Your task to perform on an android device: Add beats solo 3 to the cart on ebay.com Image 0: 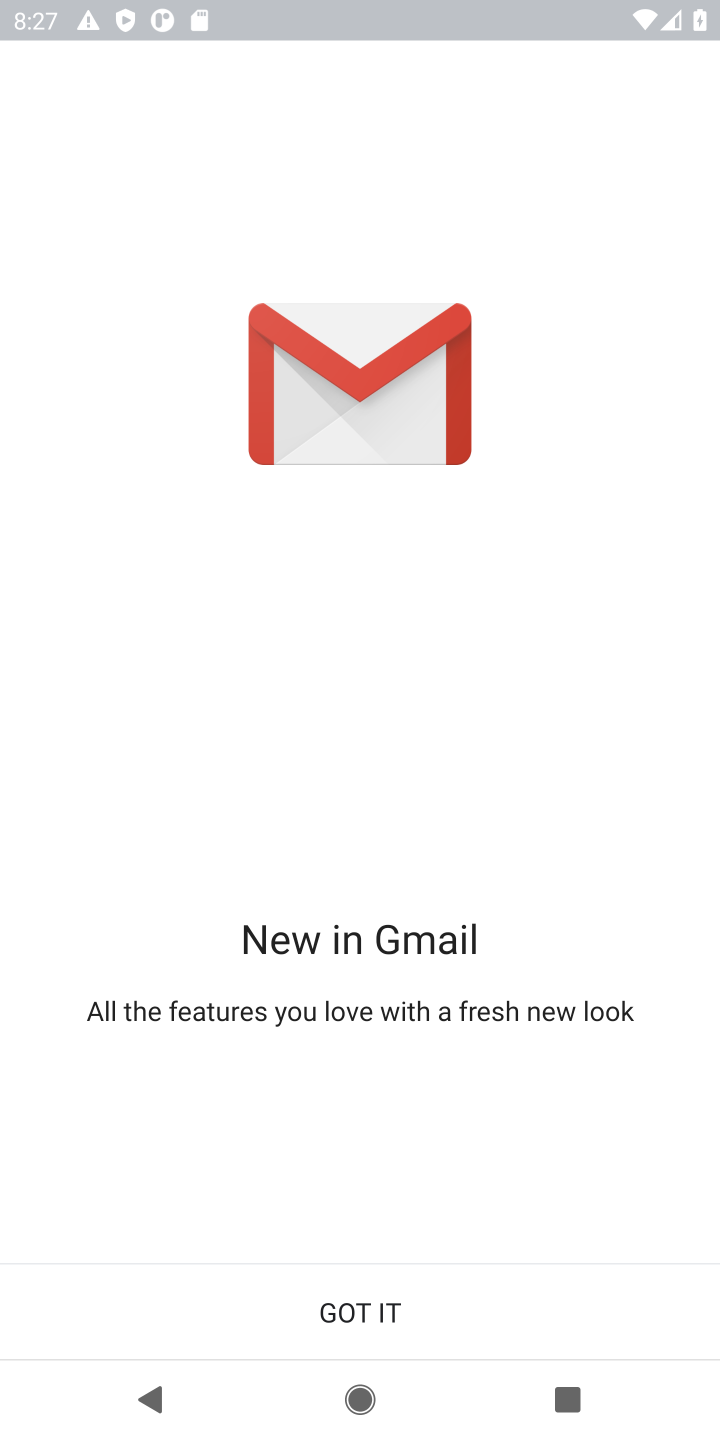
Step 0: press home button
Your task to perform on an android device: Add beats solo 3 to the cart on ebay.com Image 1: 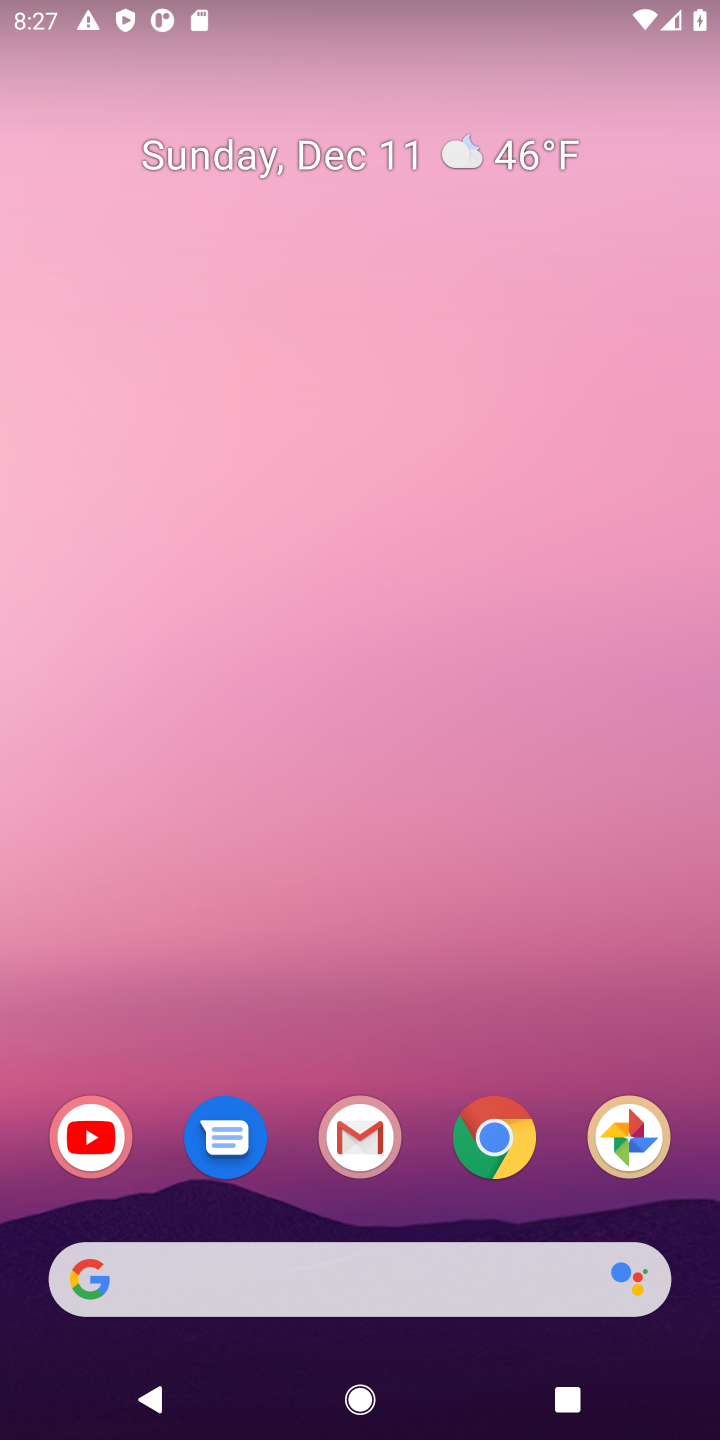
Step 1: click (502, 1142)
Your task to perform on an android device: Add beats solo 3 to the cart on ebay.com Image 2: 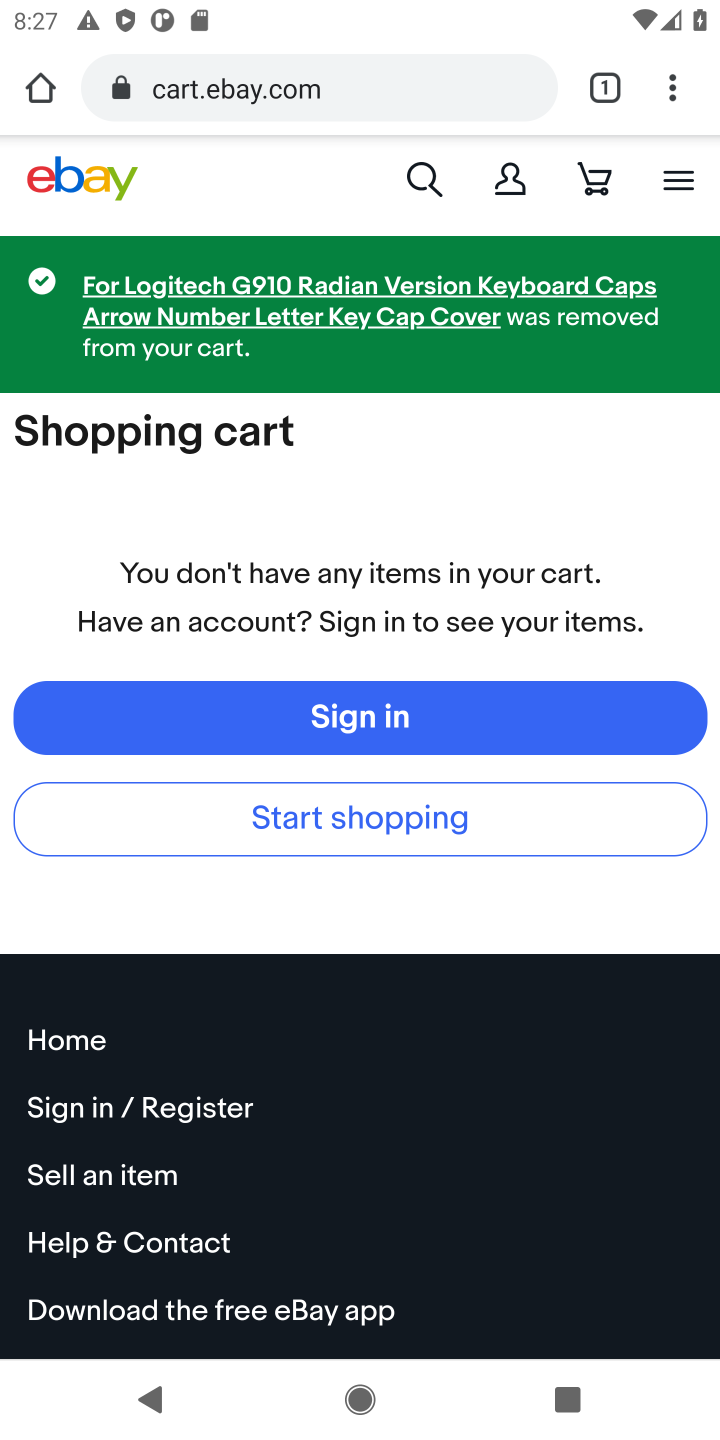
Step 2: click (425, 84)
Your task to perform on an android device: Add beats solo 3 to the cart on ebay.com Image 3: 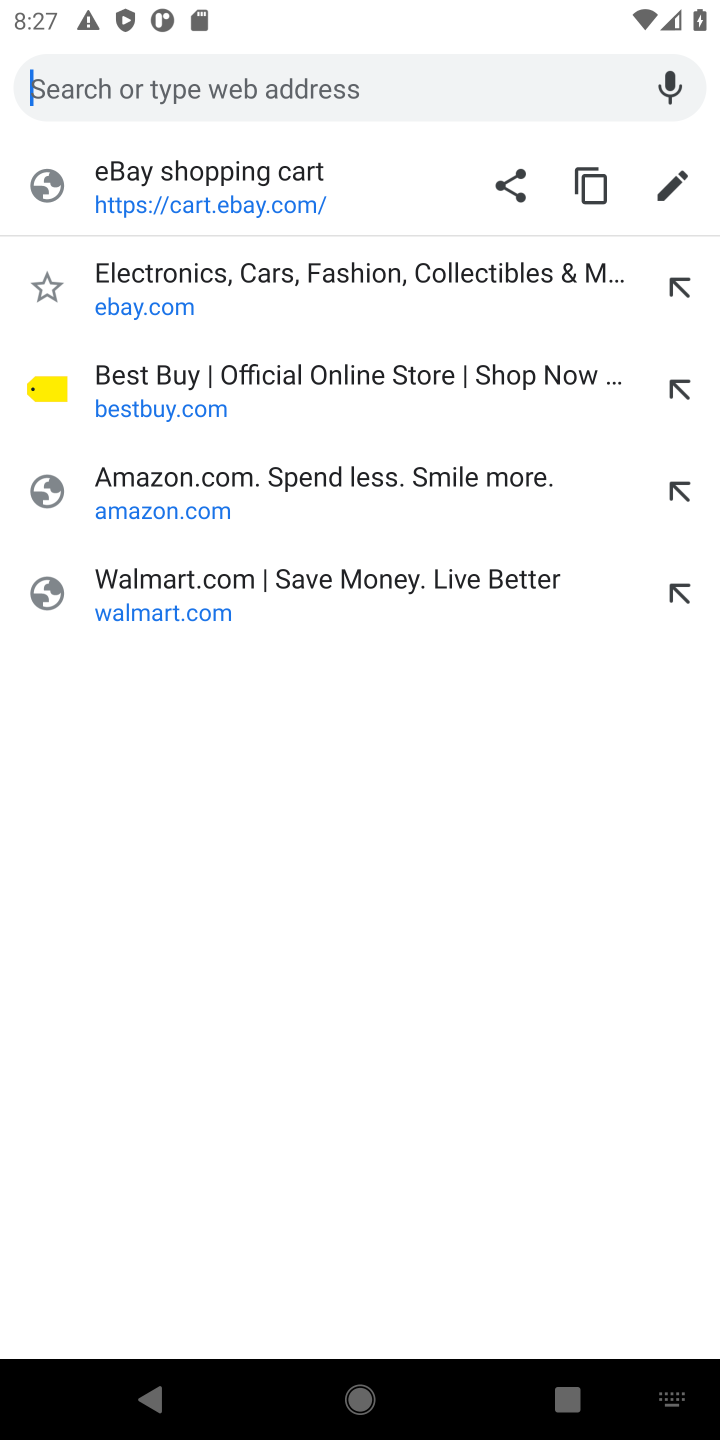
Step 3: click (212, 283)
Your task to perform on an android device: Add beats solo 3 to the cart on ebay.com Image 4: 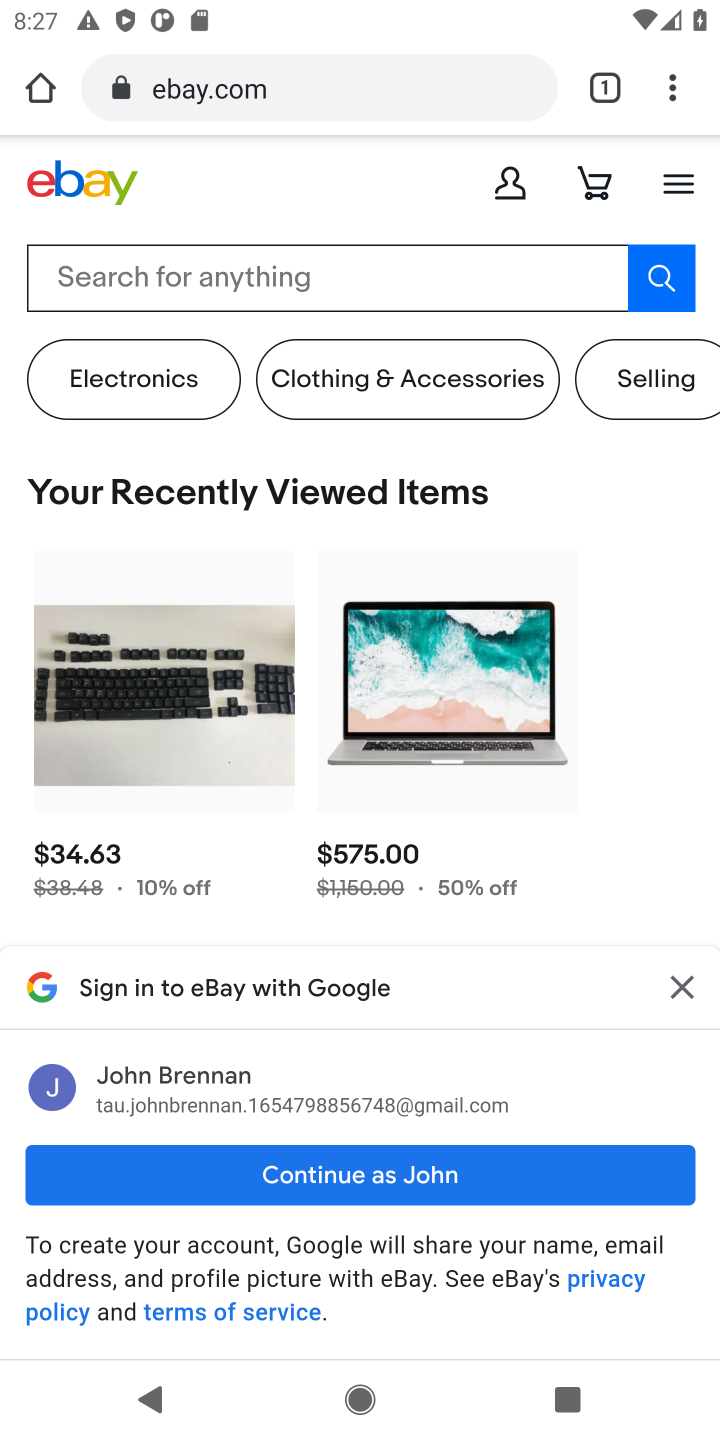
Step 4: click (380, 275)
Your task to perform on an android device: Add beats solo 3 to the cart on ebay.com Image 5: 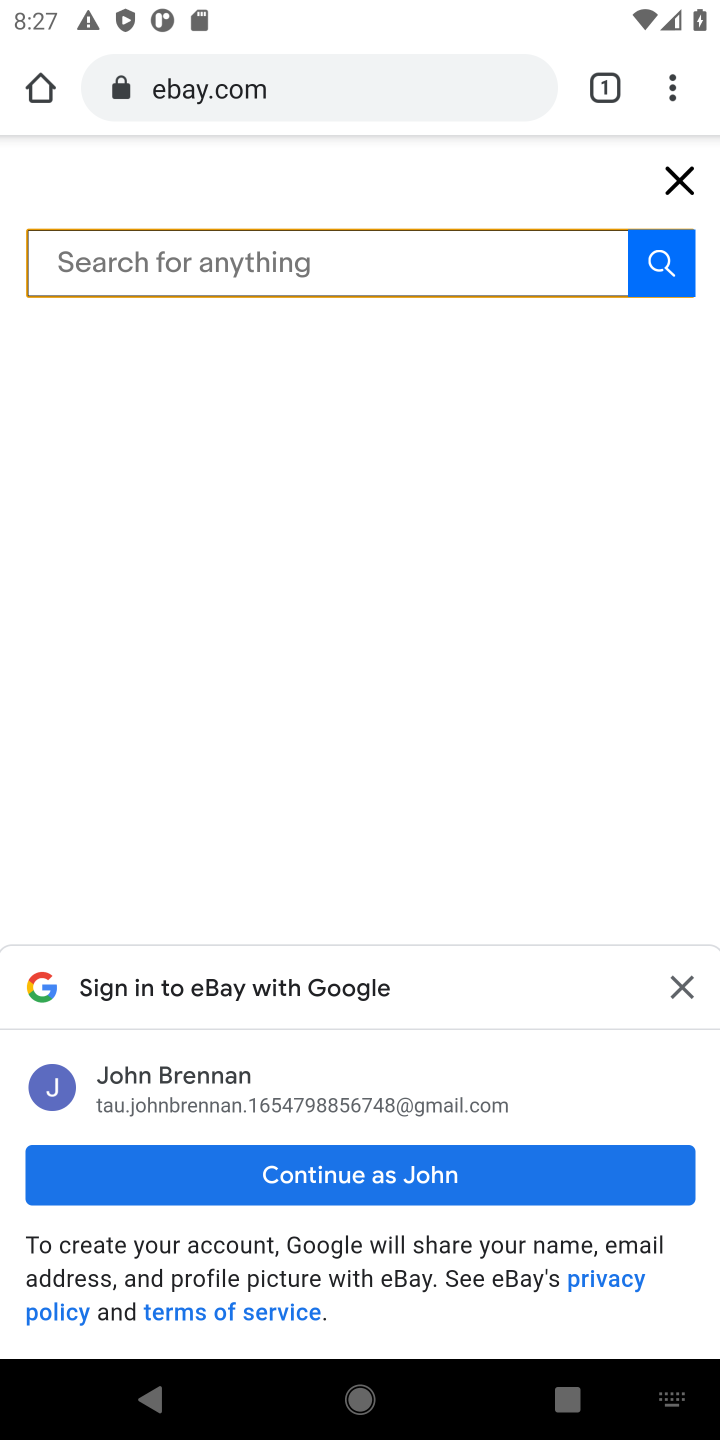
Step 5: type "BEATS SOLO 3"
Your task to perform on an android device: Add beats solo 3 to the cart on ebay.com Image 6: 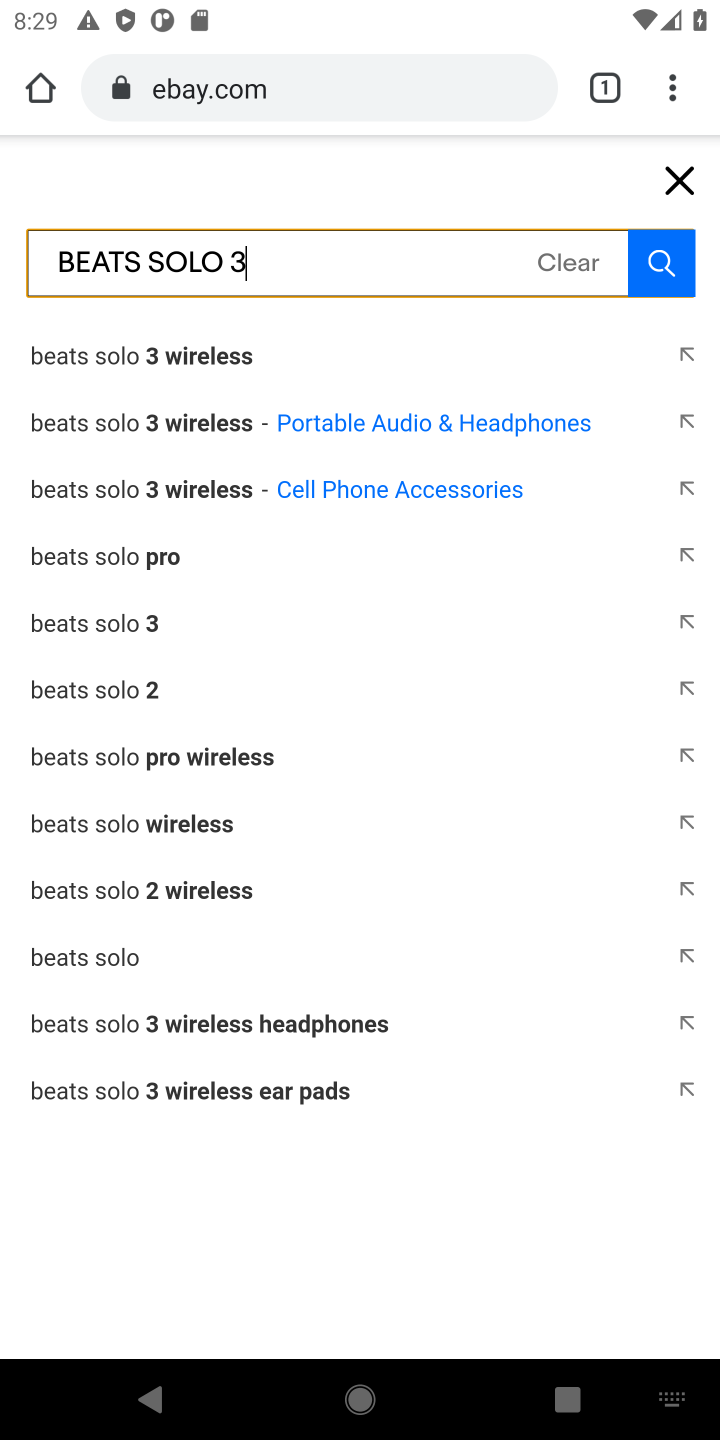
Step 6: click (129, 347)
Your task to perform on an android device: Add beats solo 3 to the cart on ebay.com Image 7: 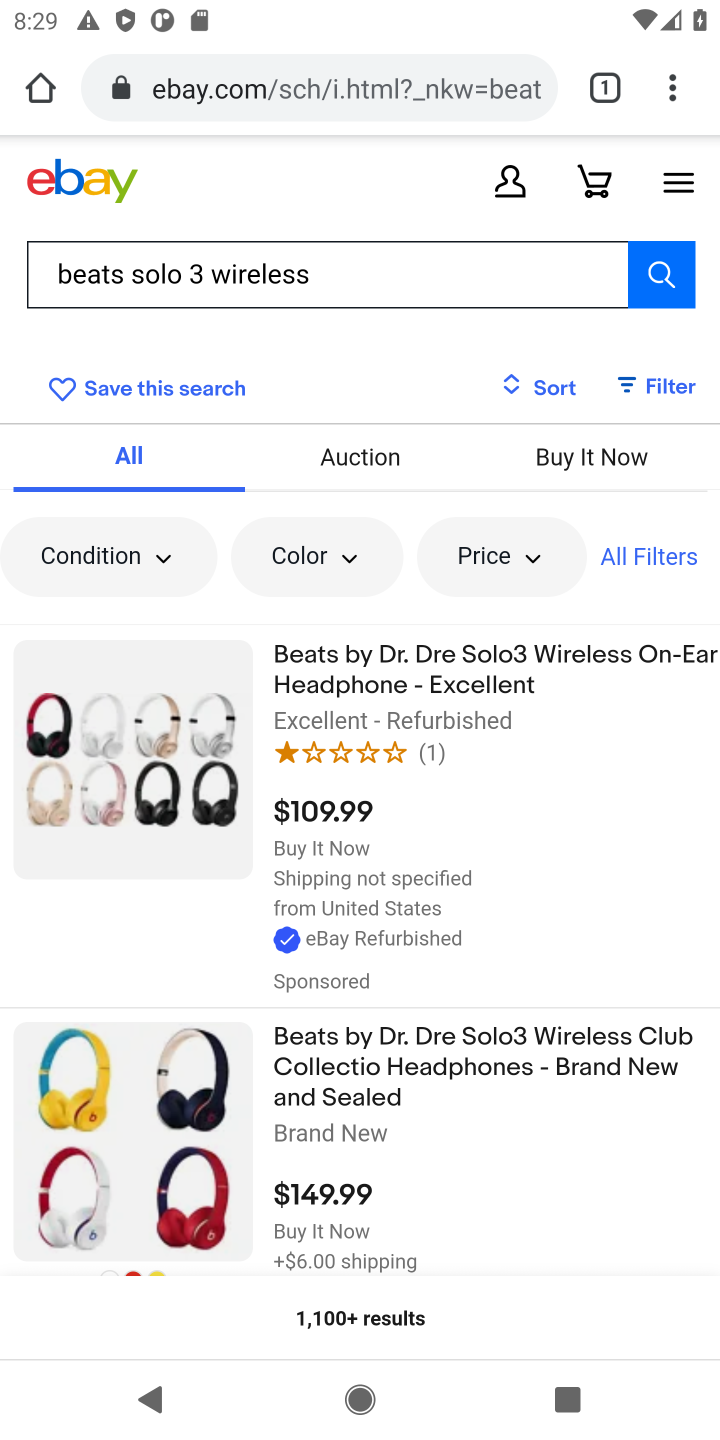
Step 7: click (533, 810)
Your task to perform on an android device: Add beats solo 3 to the cart on ebay.com Image 8: 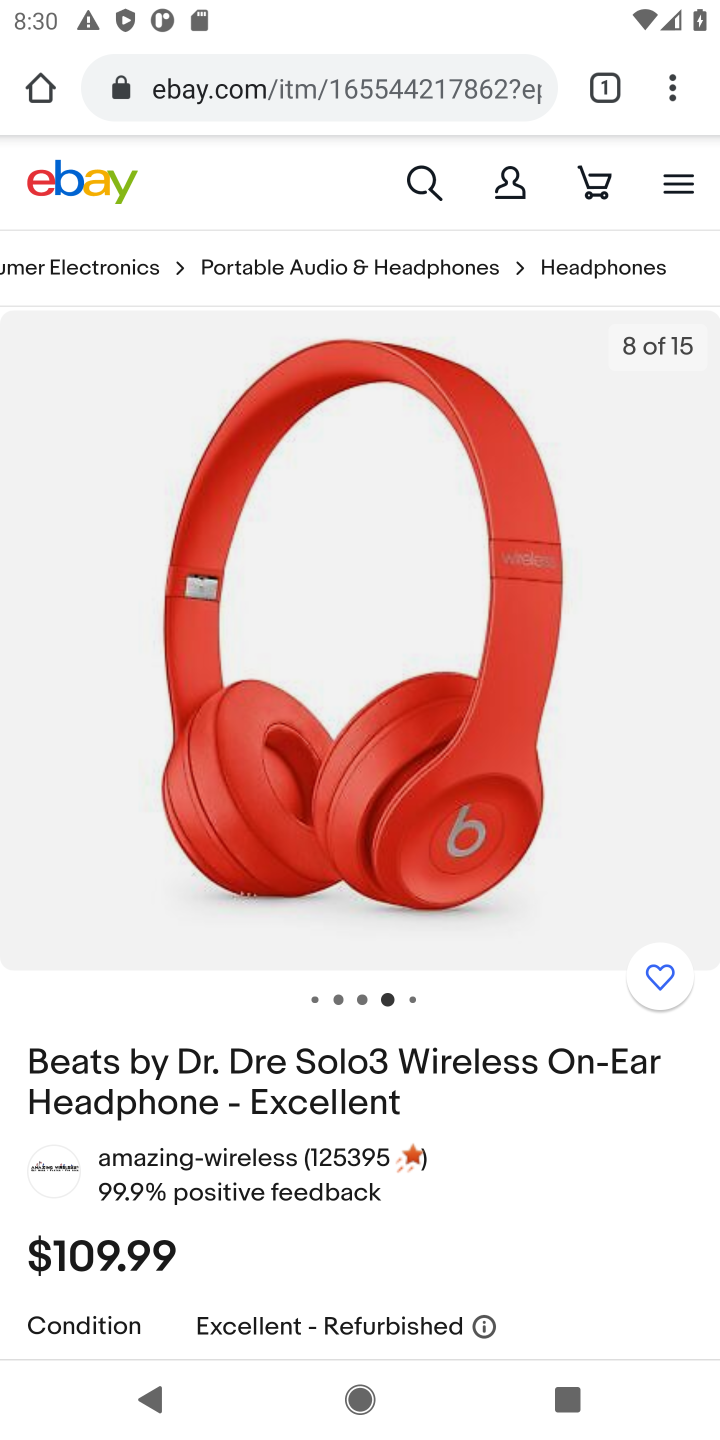
Step 8: drag from (536, 1244) to (469, 211)
Your task to perform on an android device: Add beats solo 3 to the cart on ebay.com Image 9: 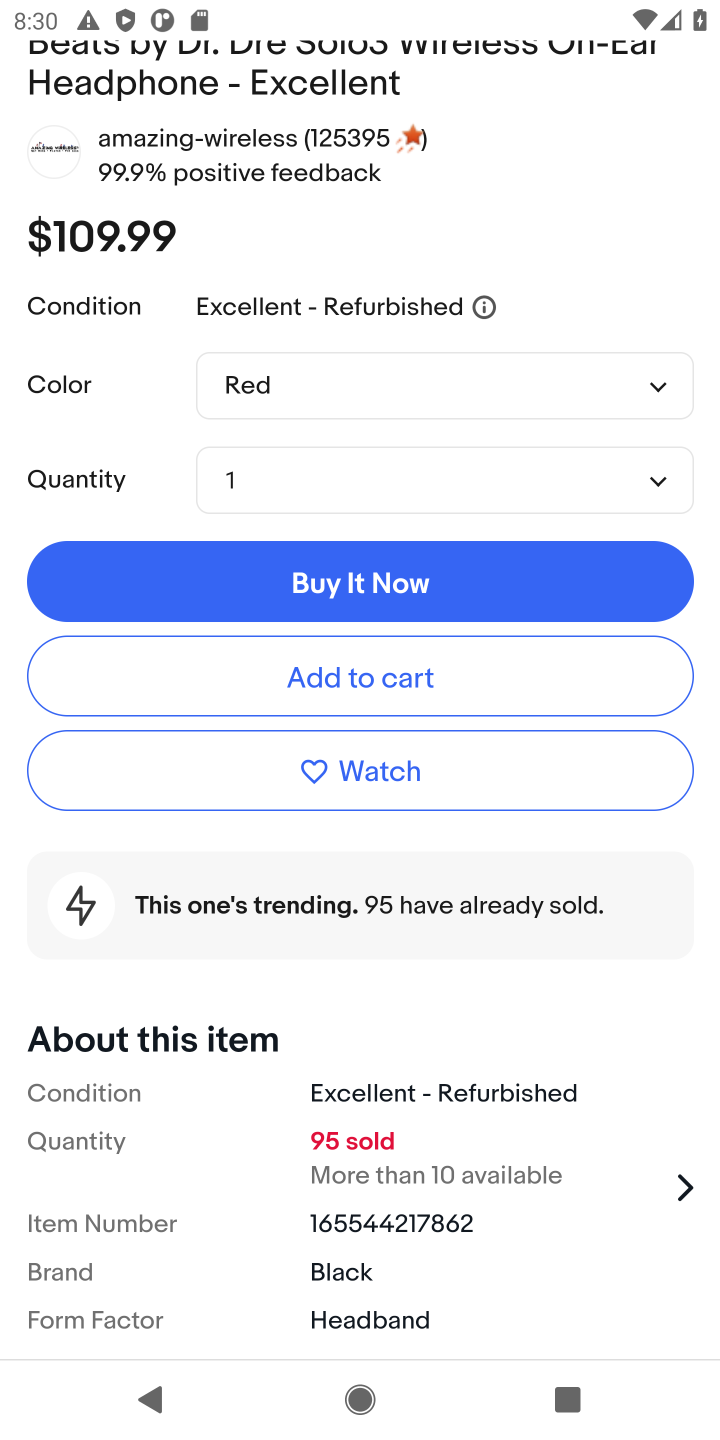
Step 9: click (363, 661)
Your task to perform on an android device: Add beats solo 3 to the cart on ebay.com Image 10: 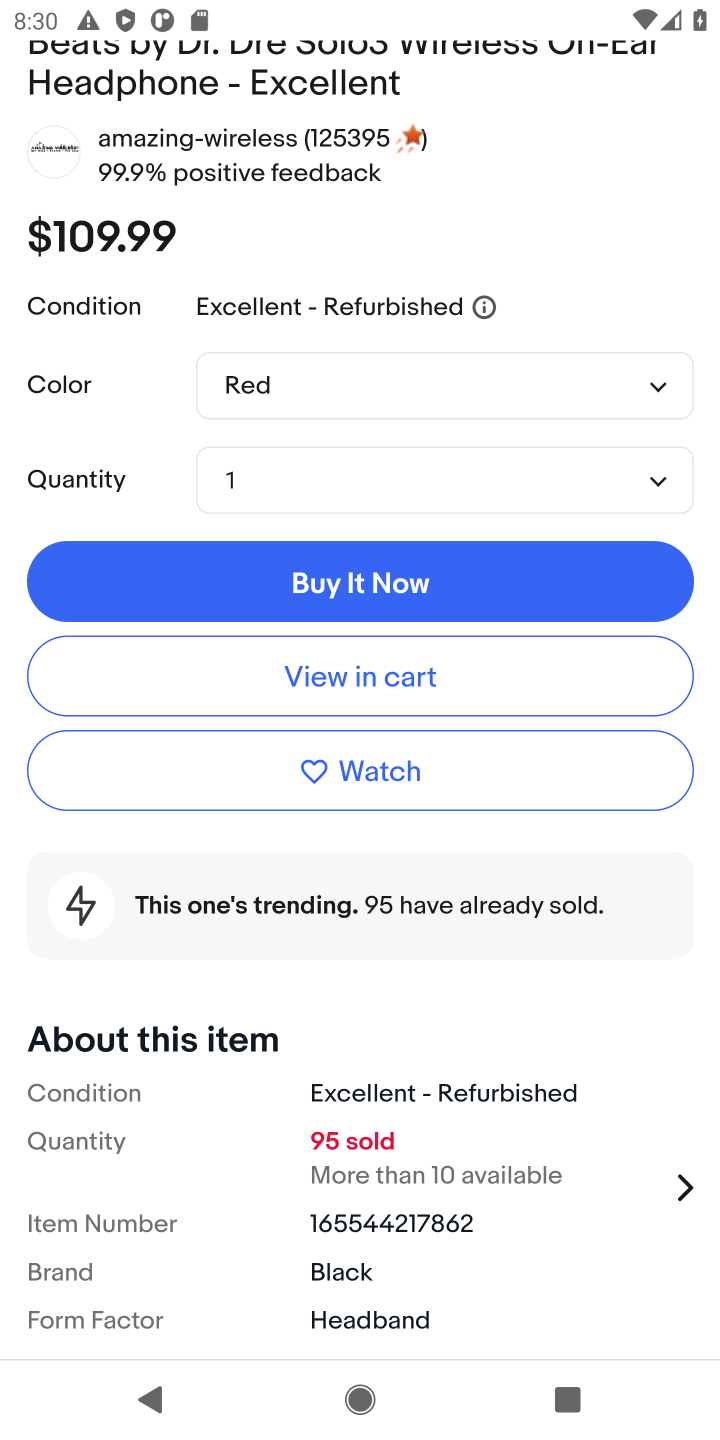
Step 10: click (402, 680)
Your task to perform on an android device: Add beats solo 3 to the cart on ebay.com Image 11: 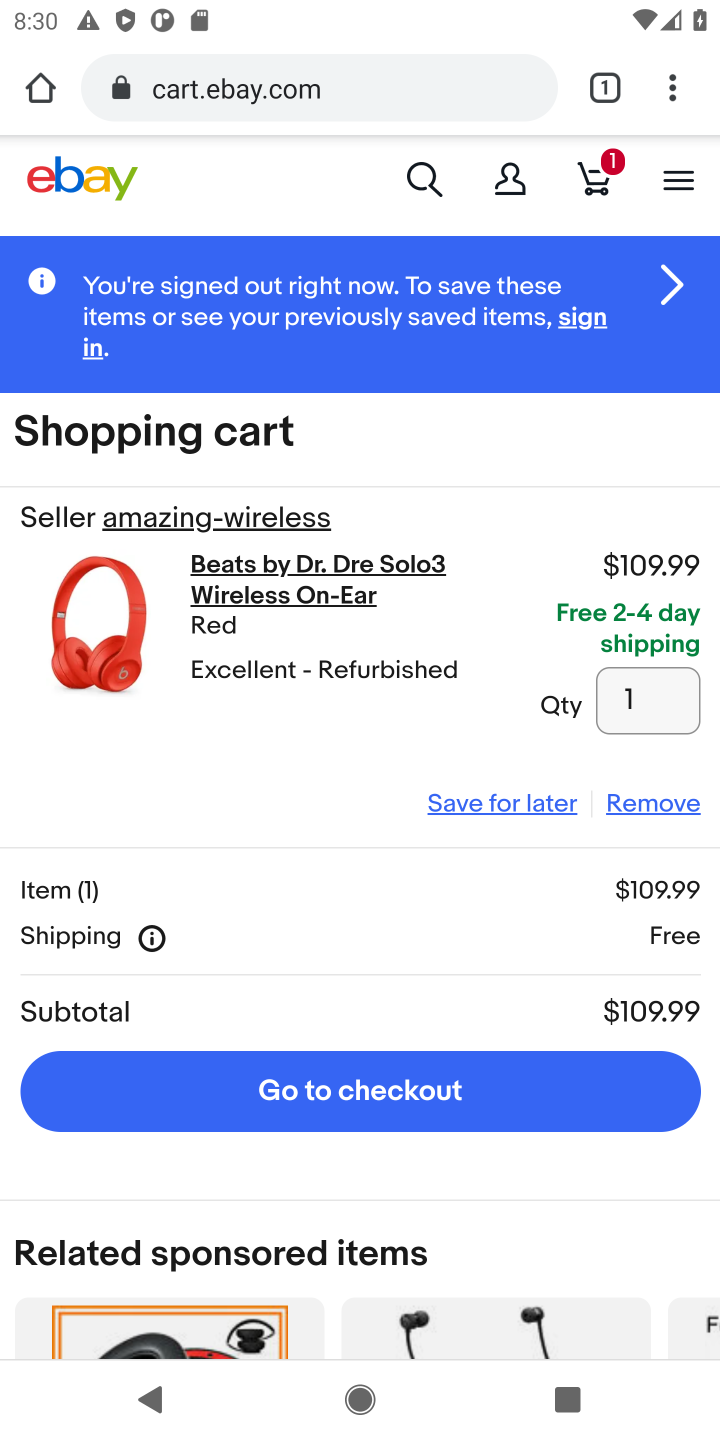
Step 11: task complete